Your task to perform on an android device: Open Google Chrome Image 0: 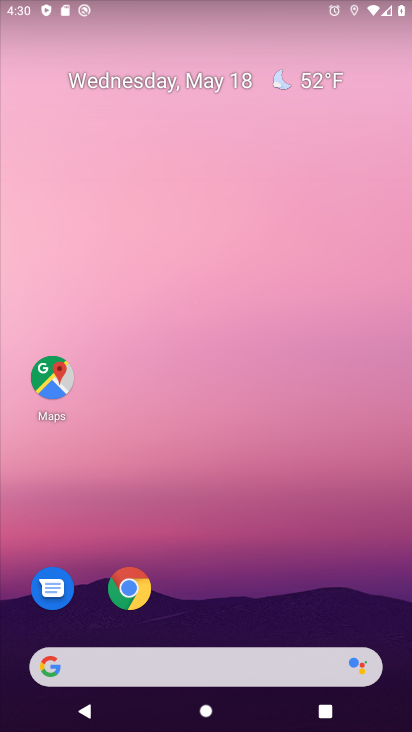
Step 0: click (129, 591)
Your task to perform on an android device: Open Google Chrome Image 1: 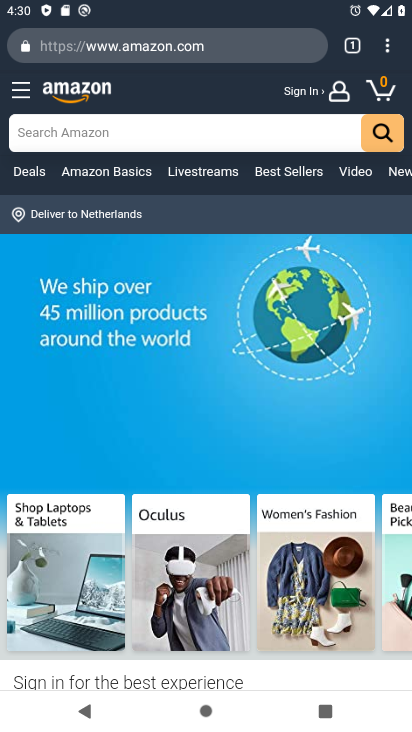
Step 1: task complete